Your task to perform on an android device: turn off airplane mode Image 0: 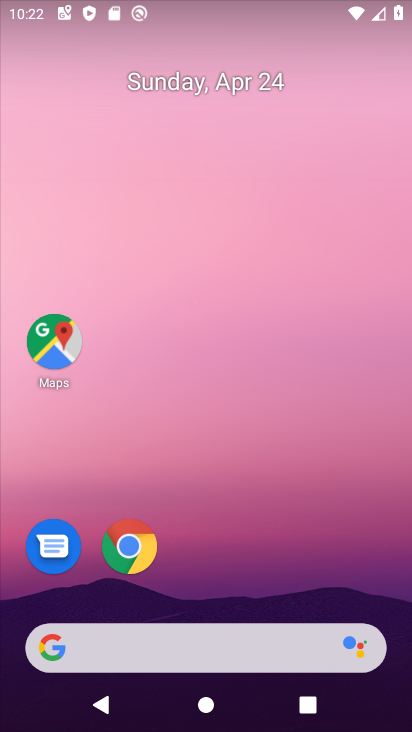
Step 0: drag from (382, 546) to (366, 40)
Your task to perform on an android device: turn off airplane mode Image 1: 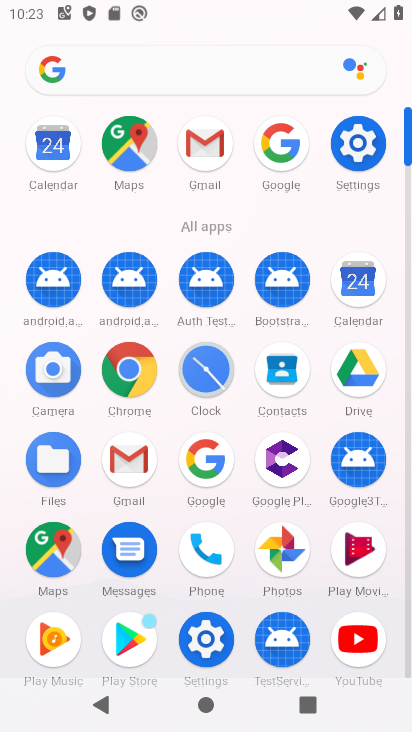
Step 1: click (357, 153)
Your task to perform on an android device: turn off airplane mode Image 2: 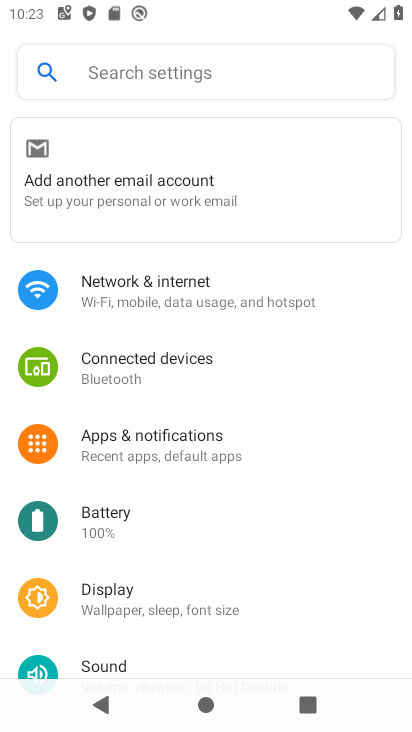
Step 2: click (175, 301)
Your task to perform on an android device: turn off airplane mode Image 3: 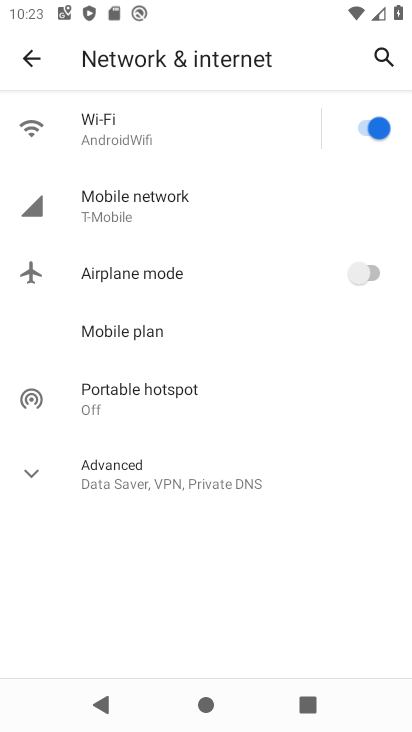
Step 3: task complete